Your task to perform on an android device: move an email to a new category in the gmail app Image 0: 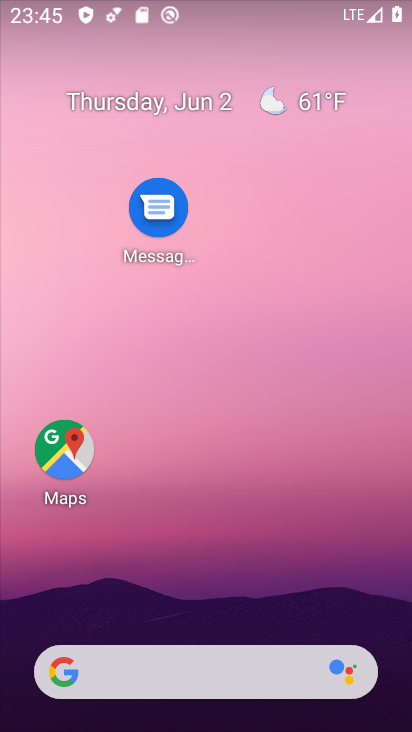
Step 0: drag from (222, 650) to (334, 64)
Your task to perform on an android device: move an email to a new category in the gmail app Image 1: 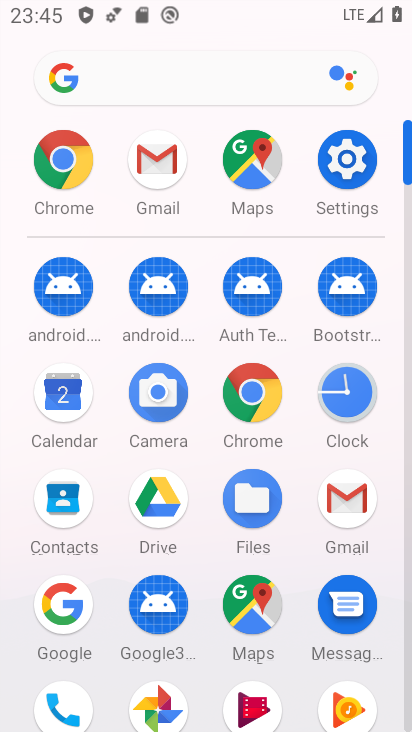
Step 1: click (355, 513)
Your task to perform on an android device: move an email to a new category in the gmail app Image 2: 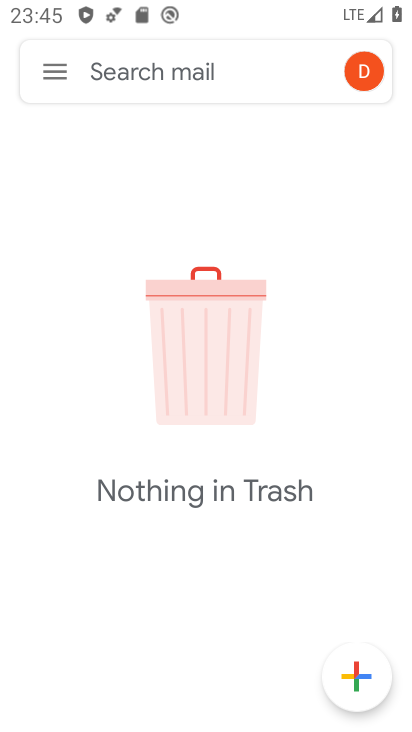
Step 2: click (67, 70)
Your task to perform on an android device: move an email to a new category in the gmail app Image 3: 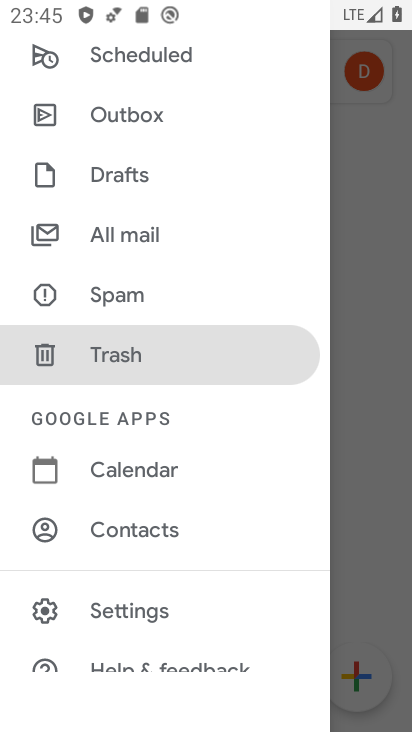
Step 3: drag from (158, 194) to (134, 698)
Your task to perform on an android device: move an email to a new category in the gmail app Image 4: 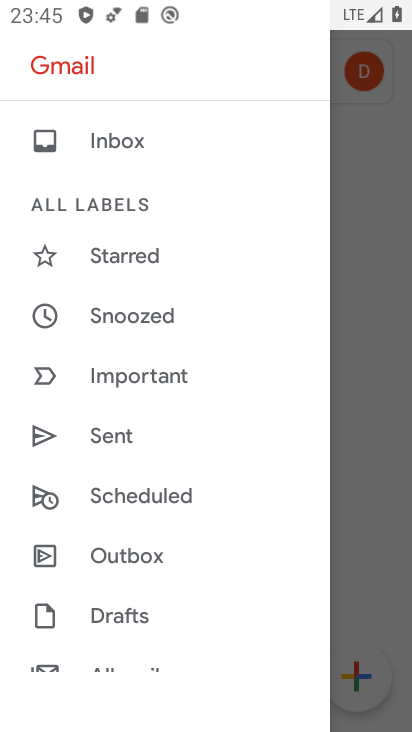
Step 4: click (120, 139)
Your task to perform on an android device: move an email to a new category in the gmail app Image 5: 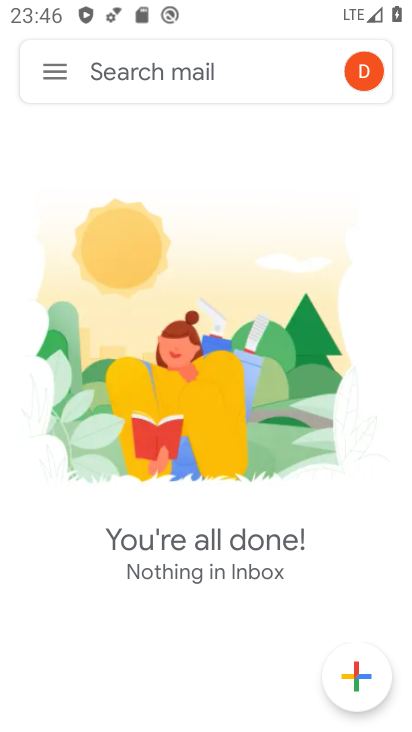
Step 5: task complete